Your task to perform on an android device: Find coffee shops on Maps Image 0: 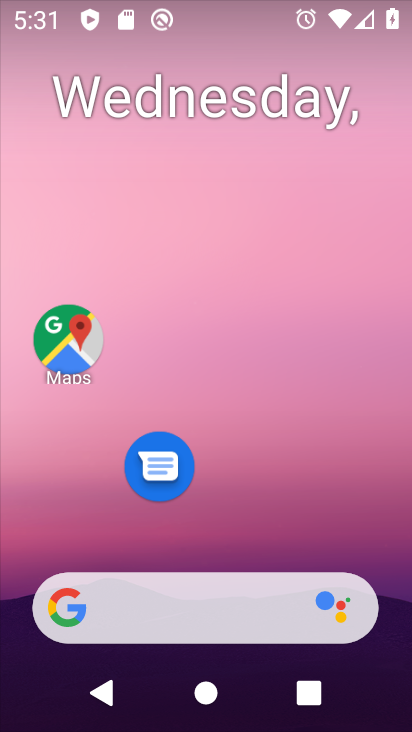
Step 0: drag from (306, 525) to (279, 80)
Your task to perform on an android device: Find coffee shops on Maps Image 1: 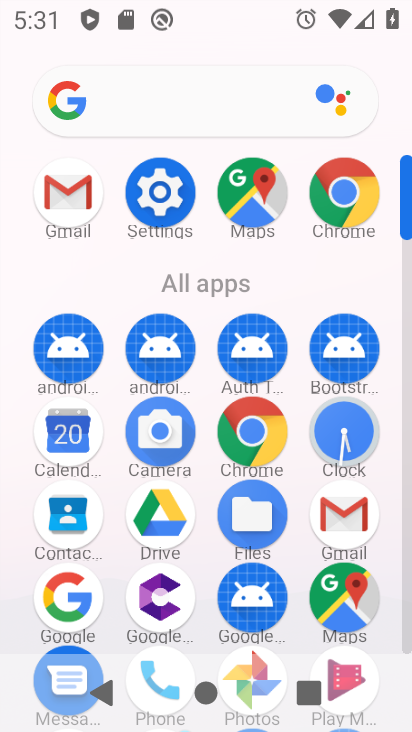
Step 1: click (341, 583)
Your task to perform on an android device: Find coffee shops on Maps Image 2: 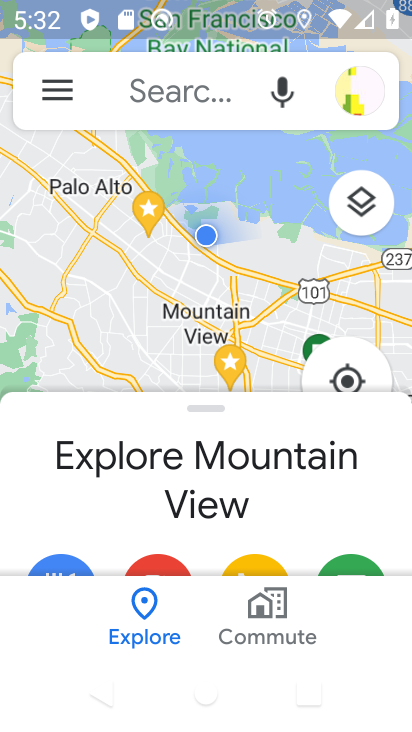
Step 2: click (152, 84)
Your task to perform on an android device: Find coffee shops on Maps Image 3: 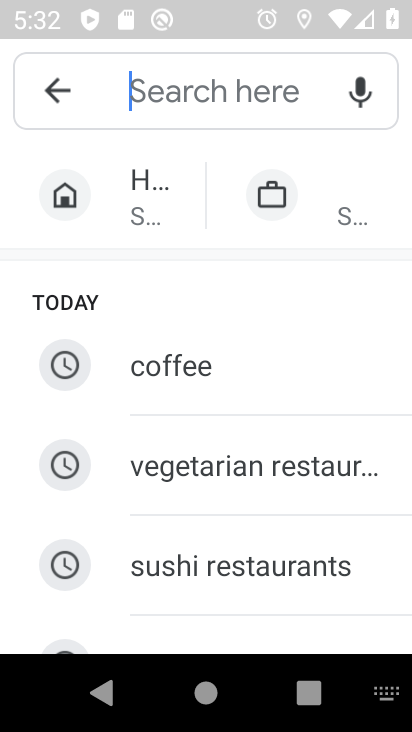
Step 3: type "coffee shops "
Your task to perform on an android device: Find coffee shops on Maps Image 4: 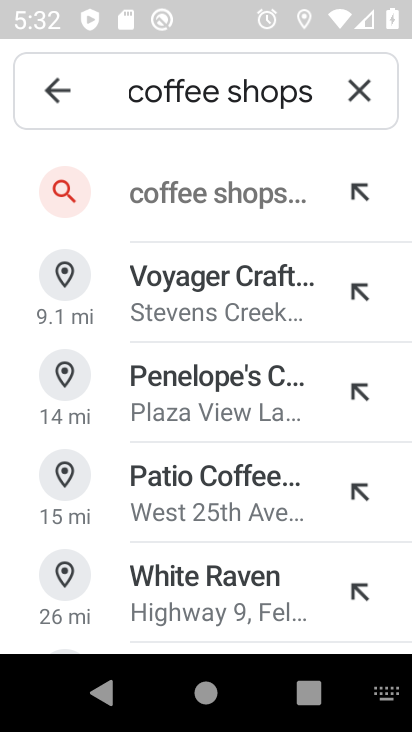
Step 4: click (180, 199)
Your task to perform on an android device: Find coffee shops on Maps Image 5: 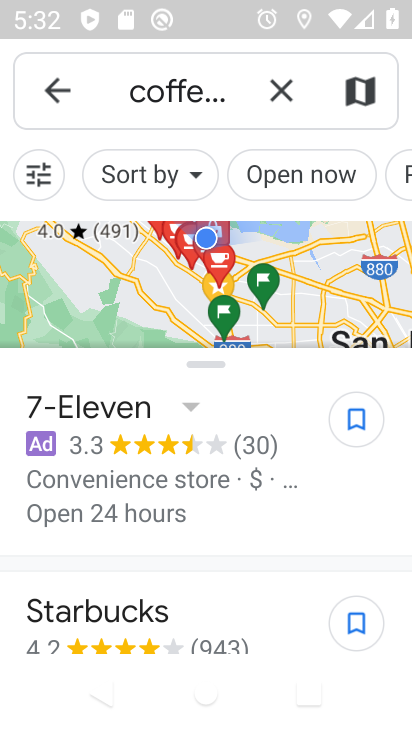
Step 5: task complete